Your task to perform on an android device: find which apps use the phone's location Image 0: 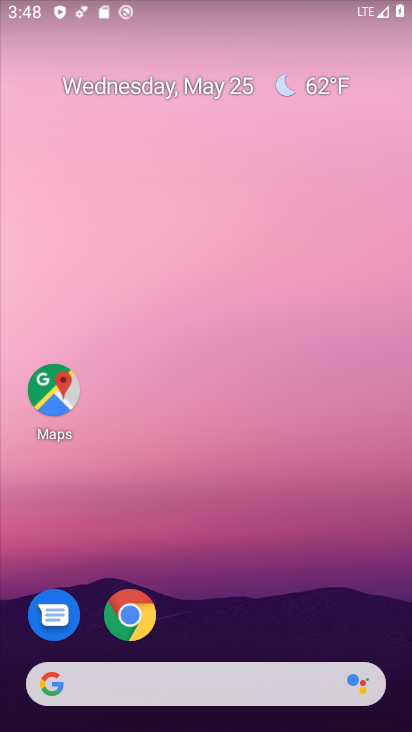
Step 0: drag from (312, 528) to (229, 85)
Your task to perform on an android device: find which apps use the phone's location Image 1: 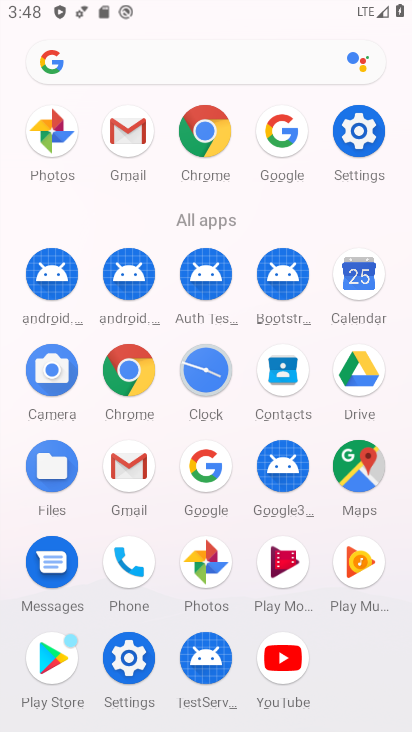
Step 1: click (365, 138)
Your task to perform on an android device: find which apps use the phone's location Image 2: 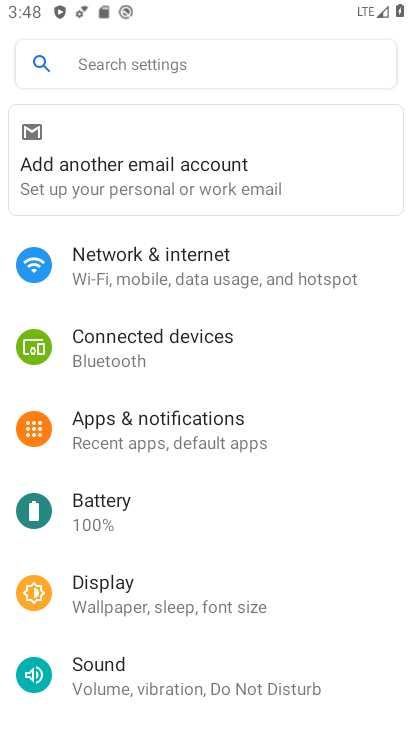
Step 2: drag from (296, 488) to (293, 125)
Your task to perform on an android device: find which apps use the phone's location Image 3: 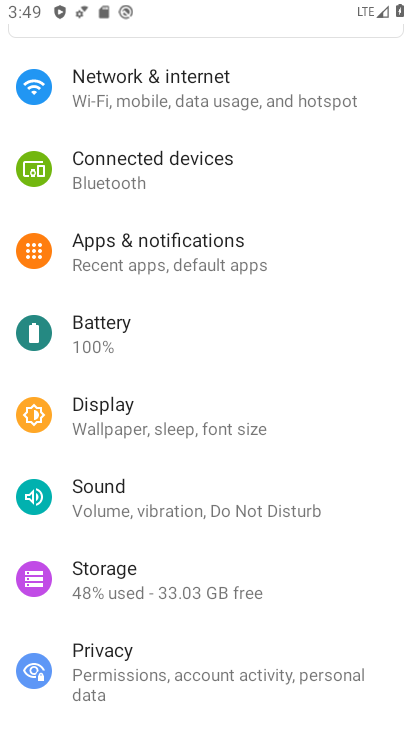
Step 3: drag from (207, 563) to (237, 166)
Your task to perform on an android device: find which apps use the phone's location Image 4: 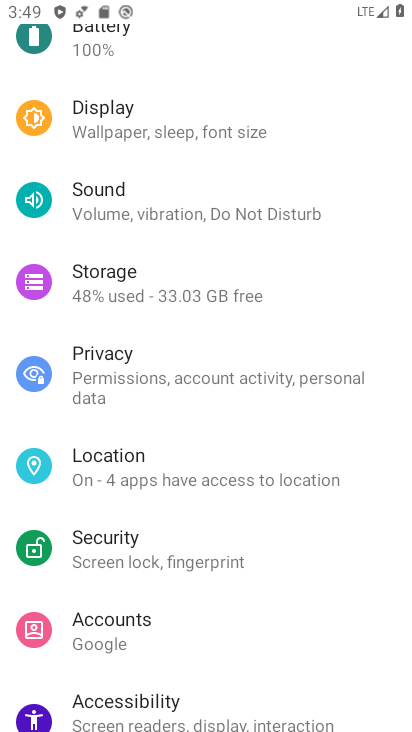
Step 4: click (170, 459)
Your task to perform on an android device: find which apps use the phone's location Image 5: 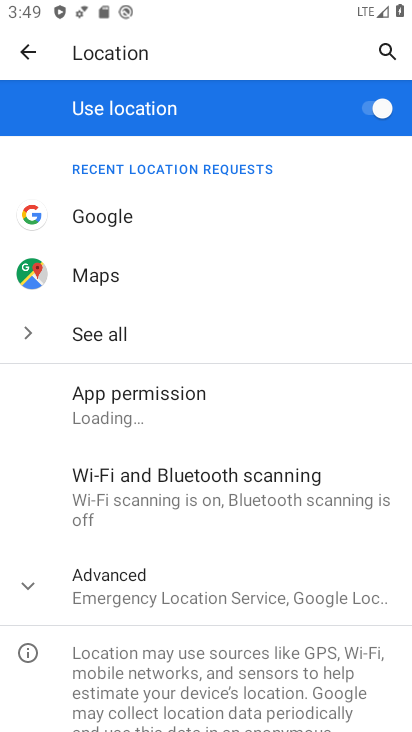
Step 5: click (250, 403)
Your task to perform on an android device: find which apps use the phone's location Image 6: 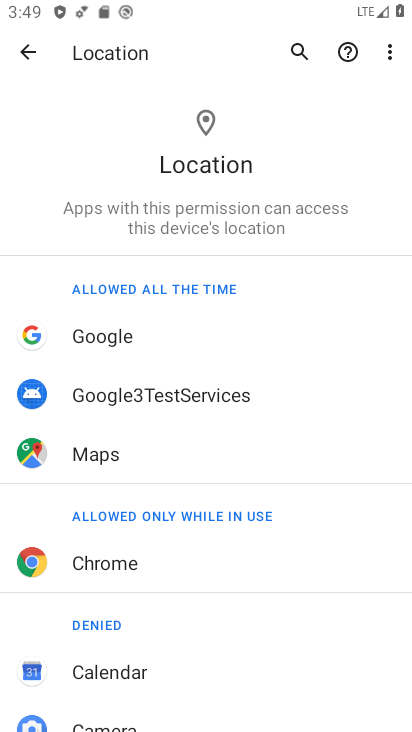
Step 6: task complete